Your task to perform on an android device: turn off airplane mode Image 0: 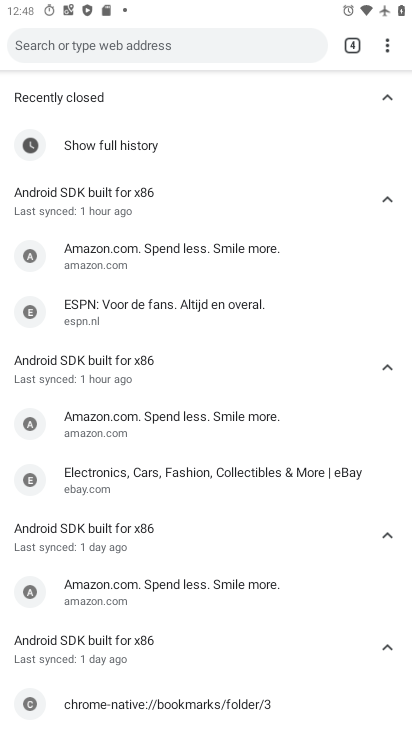
Step 0: press home button
Your task to perform on an android device: turn off airplane mode Image 1: 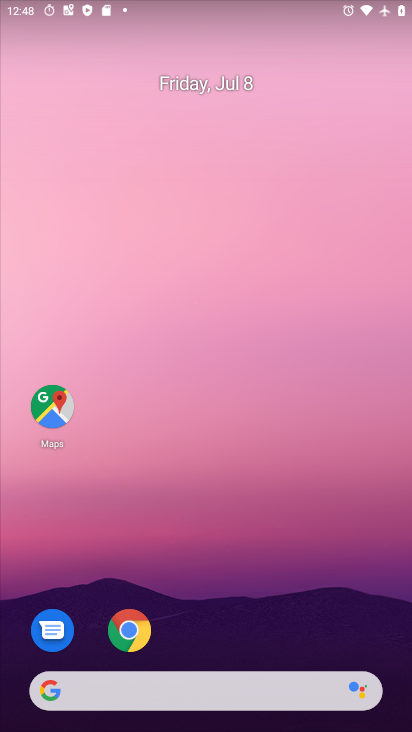
Step 1: drag from (236, 606) to (240, 149)
Your task to perform on an android device: turn off airplane mode Image 2: 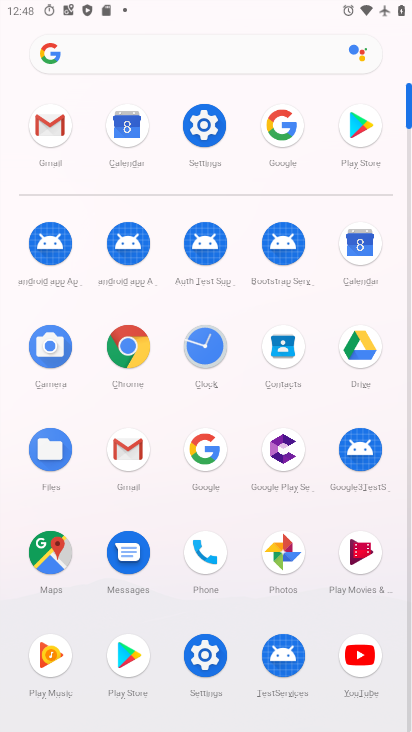
Step 2: click (219, 117)
Your task to perform on an android device: turn off airplane mode Image 3: 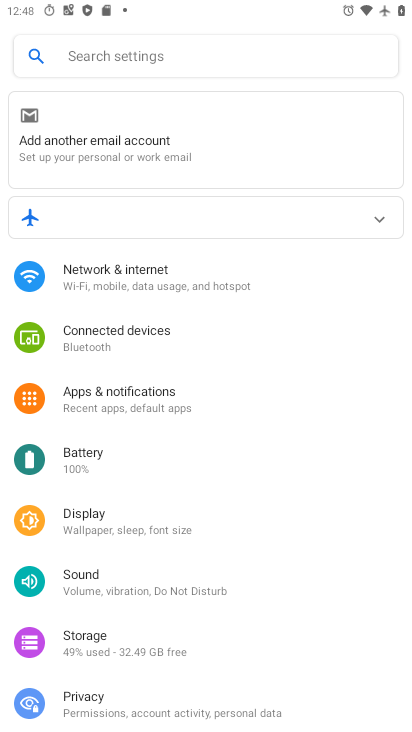
Step 3: click (164, 282)
Your task to perform on an android device: turn off airplane mode Image 4: 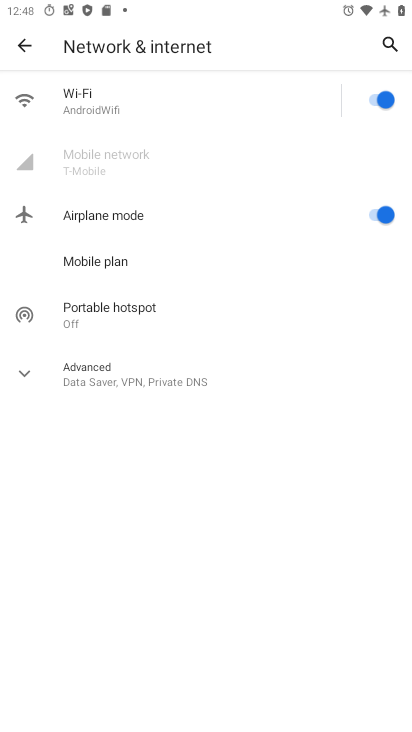
Step 4: click (361, 209)
Your task to perform on an android device: turn off airplane mode Image 5: 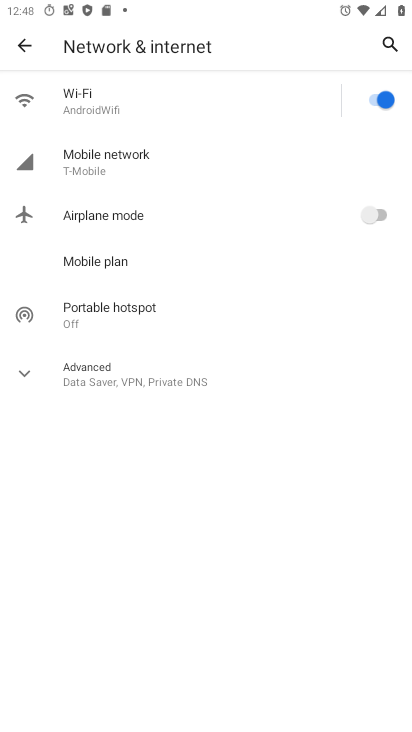
Step 5: task complete